Your task to perform on an android device: What's the weather going to be tomorrow? Image 0: 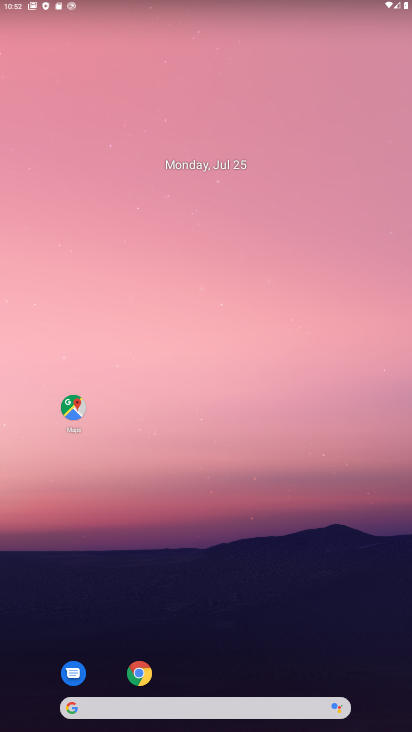
Step 0: click (223, 700)
Your task to perform on an android device: What's the weather going to be tomorrow? Image 1: 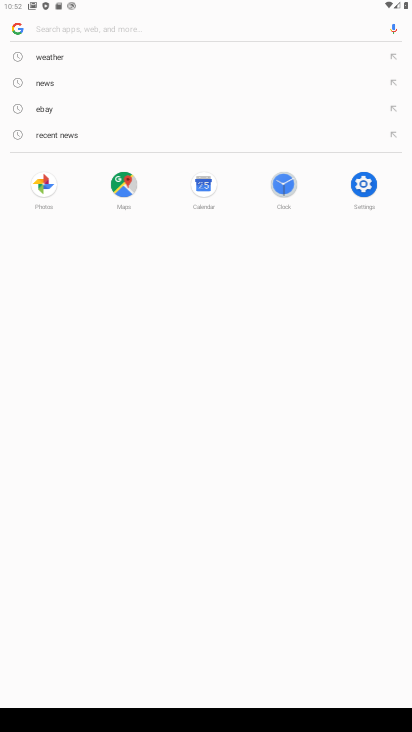
Step 1: type "what's the weather going to be tomorrow"
Your task to perform on an android device: What's the weather going to be tomorrow? Image 2: 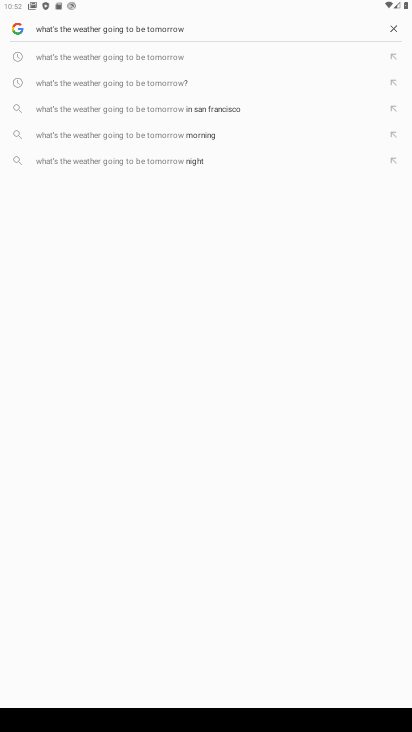
Step 2: click (145, 82)
Your task to perform on an android device: What's the weather going to be tomorrow? Image 3: 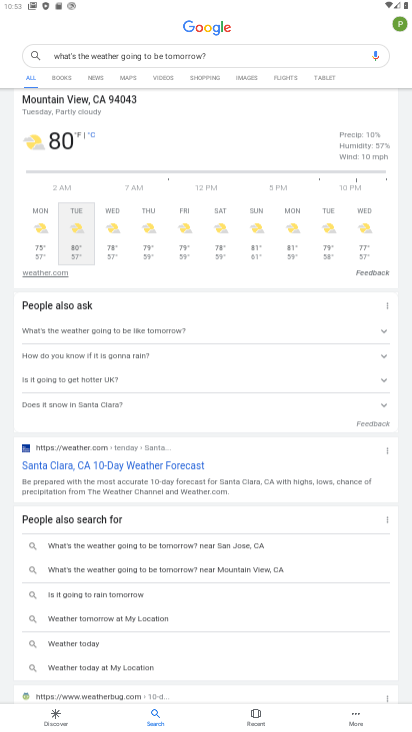
Step 3: task complete